Your task to perform on an android device: toggle pop-ups in chrome Image 0: 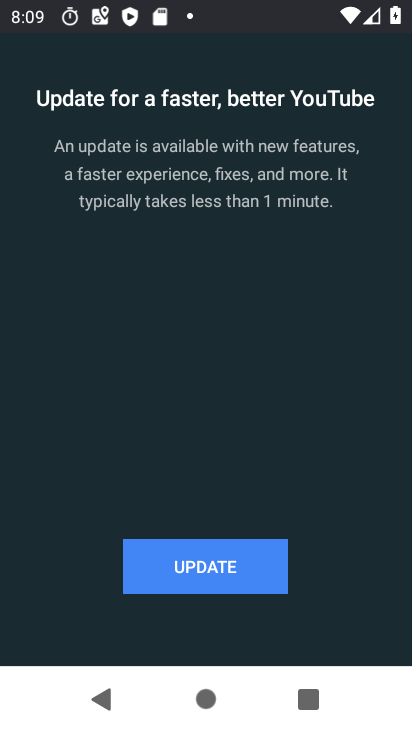
Step 0: press home button
Your task to perform on an android device: toggle pop-ups in chrome Image 1: 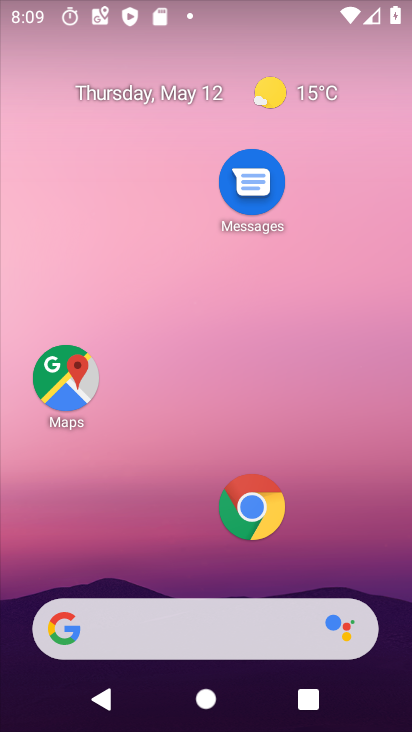
Step 1: click (265, 504)
Your task to perform on an android device: toggle pop-ups in chrome Image 2: 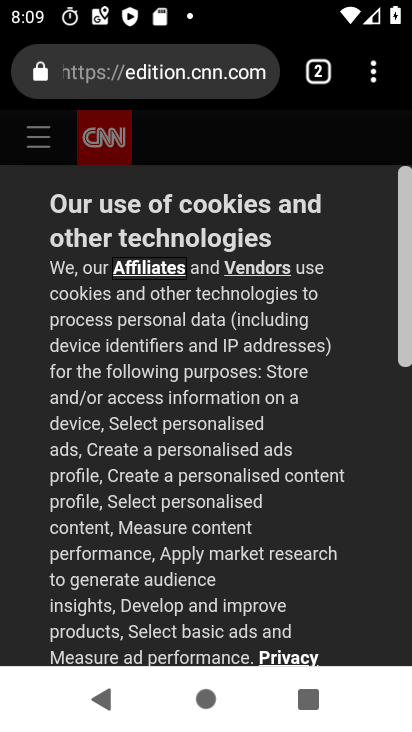
Step 2: click (381, 75)
Your task to perform on an android device: toggle pop-ups in chrome Image 3: 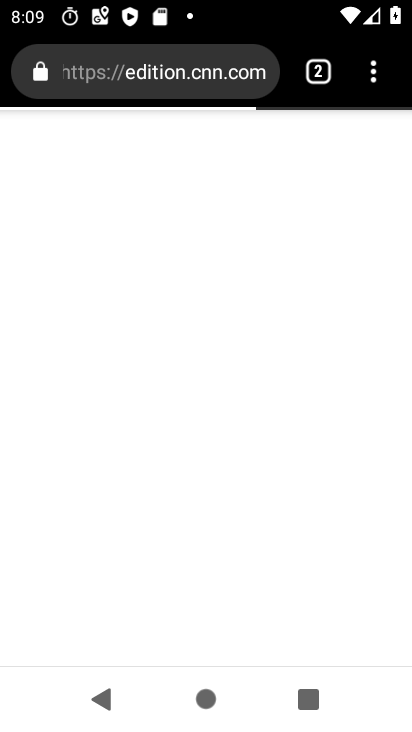
Step 3: click (380, 77)
Your task to perform on an android device: toggle pop-ups in chrome Image 4: 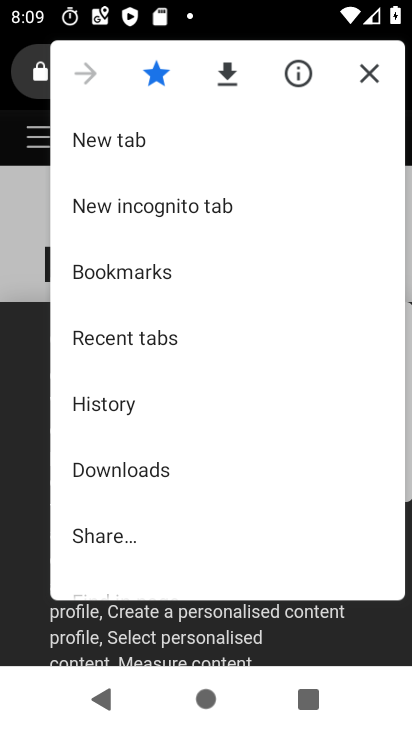
Step 4: drag from (179, 493) to (185, 277)
Your task to perform on an android device: toggle pop-ups in chrome Image 5: 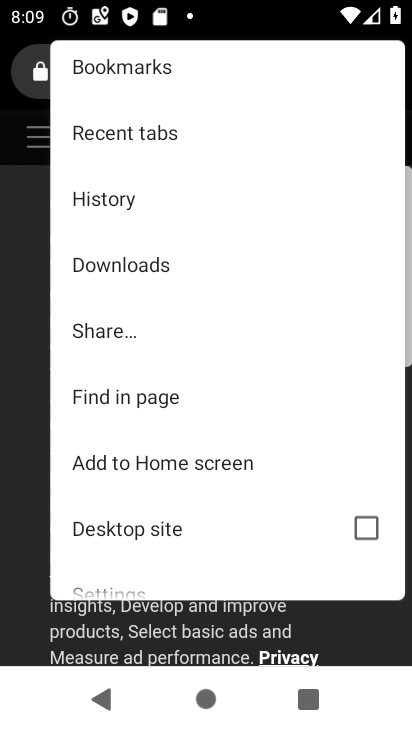
Step 5: drag from (160, 511) to (167, 345)
Your task to perform on an android device: toggle pop-ups in chrome Image 6: 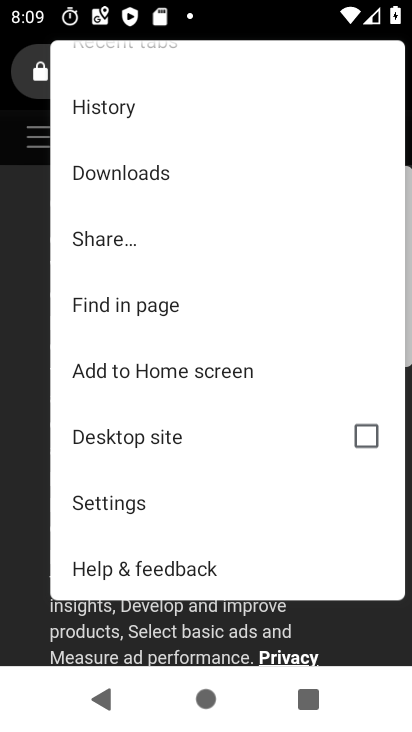
Step 6: click (170, 501)
Your task to perform on an android device: toggle pop-ups in chrome Image 7: 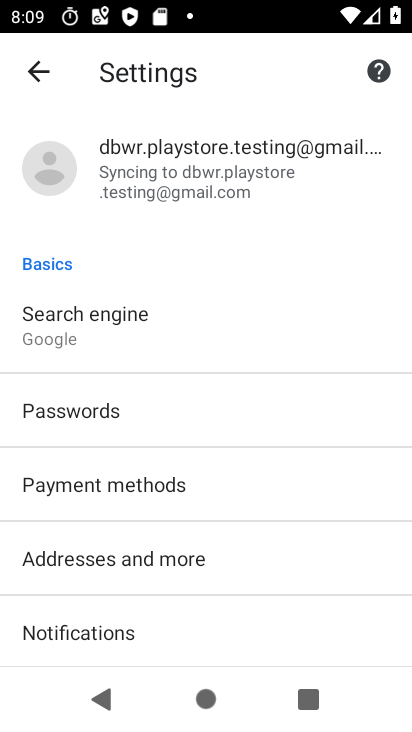
Step 7: drag from (181, 538) to (232, 235)
Your task to perform on an android device: toggle pop-ups in chrome Image 8: 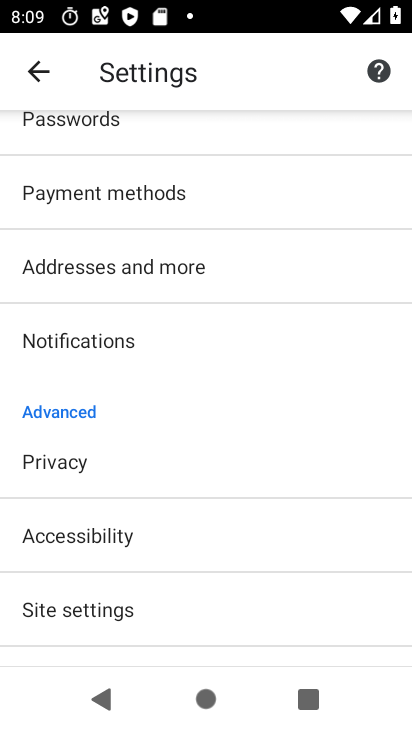
Step 8: drag from (145, 601) to (223, 317)
Your task to perform on an android device: toggle pop-ups in chrome Image 9: 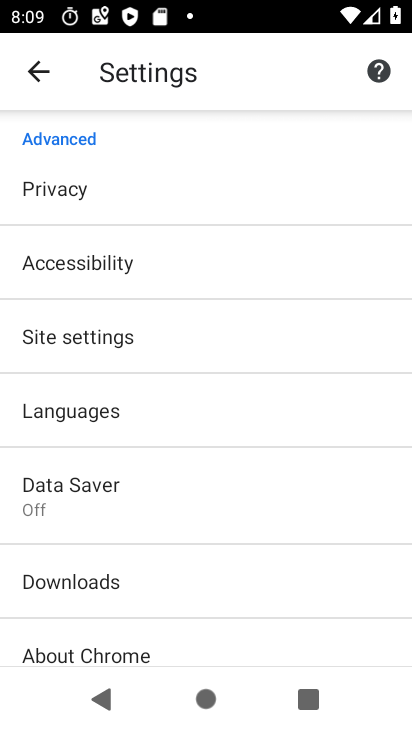
Step 9: click (156, 326)
Your task to perform on an android device: toggle pop-ups in chrome Image 10: 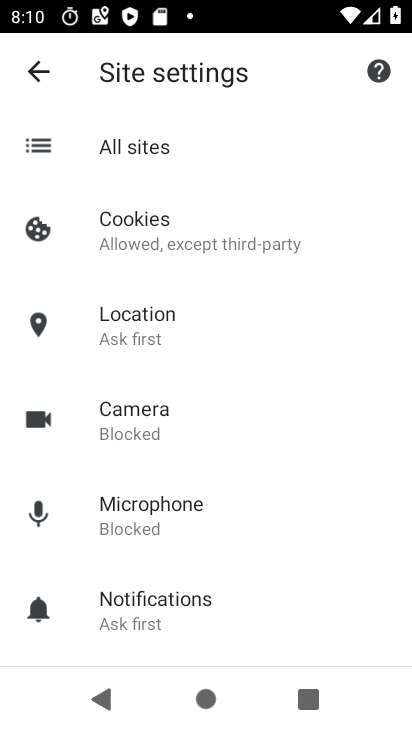
Step 10: drag from (274, 590) to (309, 332)
Your task to perform on an android device: toggle pop-ups in chrome Image 11: 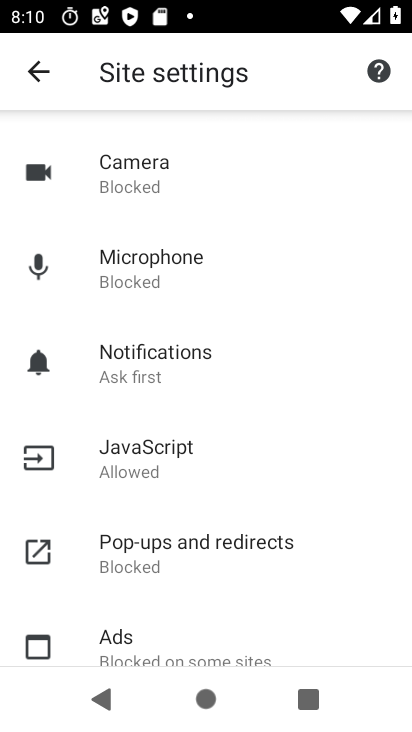
Step 11: click (304, 554)
Your task to perform on an android device: toggle pop-ups in chrome Image 12: 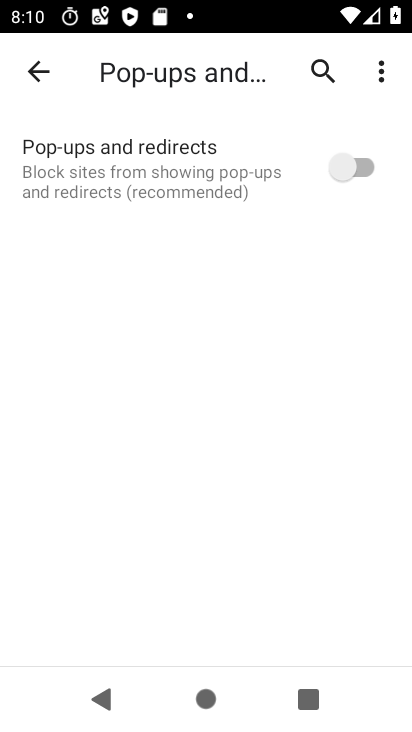
Step 12: click (348, 161)
Your task to perform on an android device: toggle pop-ups in chrome Image 13: 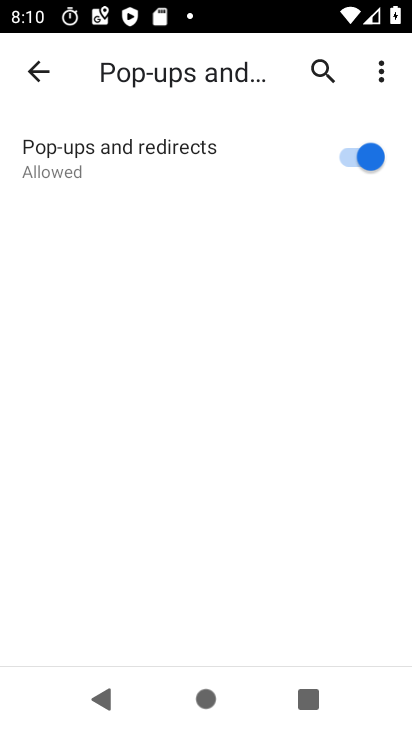
Step 13: task complete